Your task to perform on an android device: See recent photos Image 0: 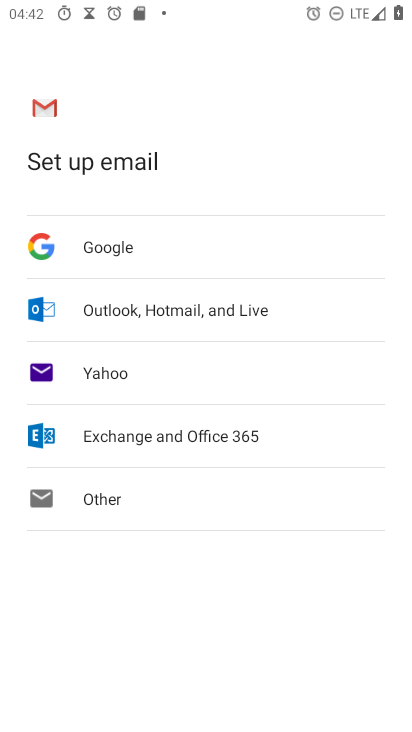
Step 0: press home button
Your task to perform on an android device: See recent photos Image 1: 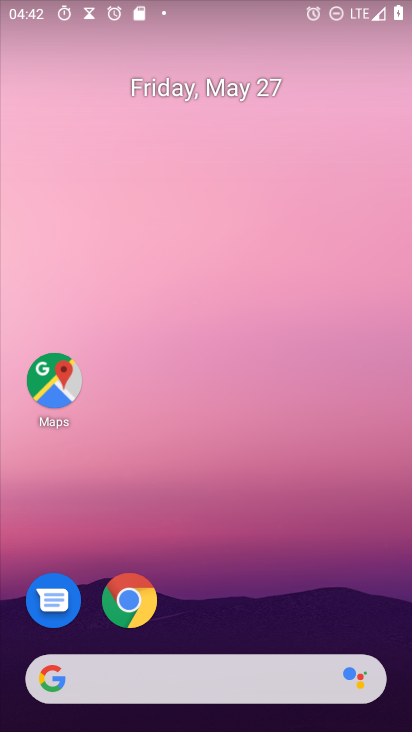
Step 1: drag from (208, 726) to (213, 177)
Your task to perform on an android device: See recent photos Image 2: 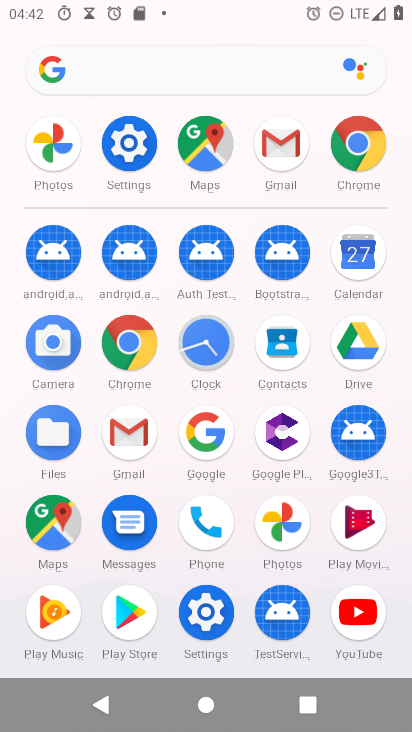
Step 2: click (276, 522)
Your task to perform on an android device: See recent photos Image 3: 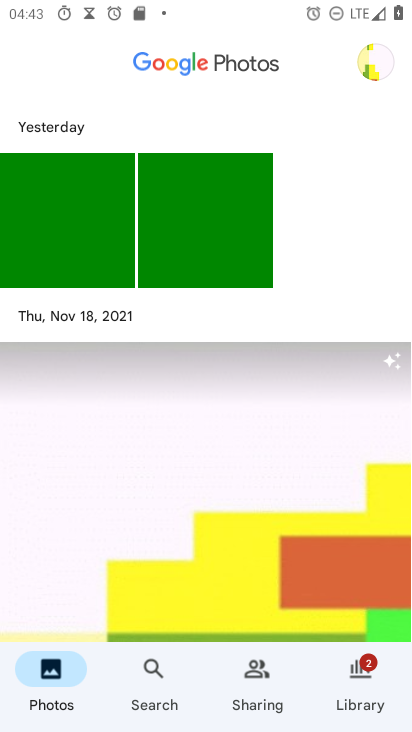
Step 3: click (89, 238)
Your task to perform on an android device: See recent photos Image 4: 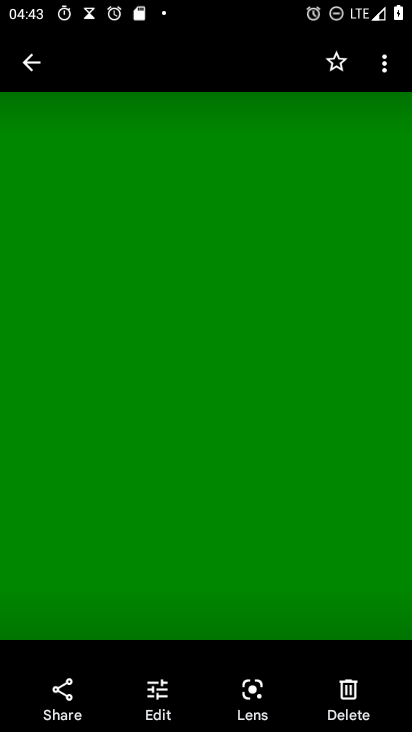
Step 4: task complete